Your task to perform on an android device: Open notification settings Image 0: 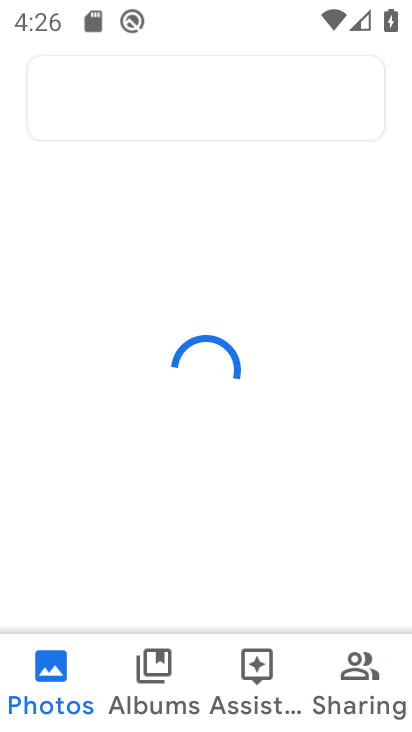
Step 0: press home button
Your task to perform on an android device: Open notification settings Image 1: 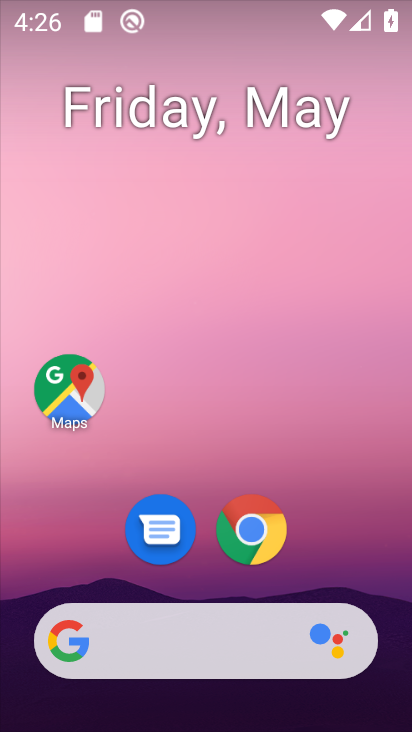
Step 1: drag from (89, 592) to (194, 31)
Your task to perform on an android device: Open notification settings Image 2: 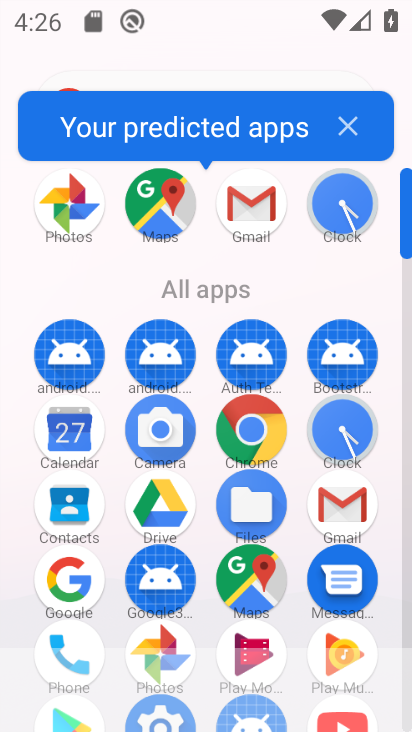
Step 2: drag from (109, 584) to (229, 187)
Your task to perform on an android device: Open notification settings Image 3: 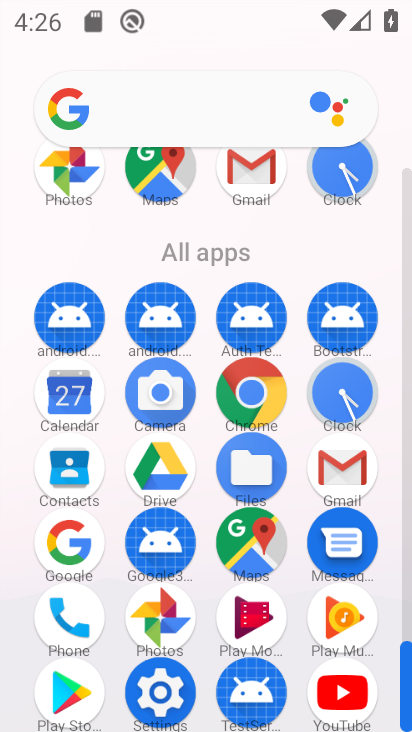
Step 3: click (172, 680)
Your task to perform on an android device: Open notification settings Image 4: 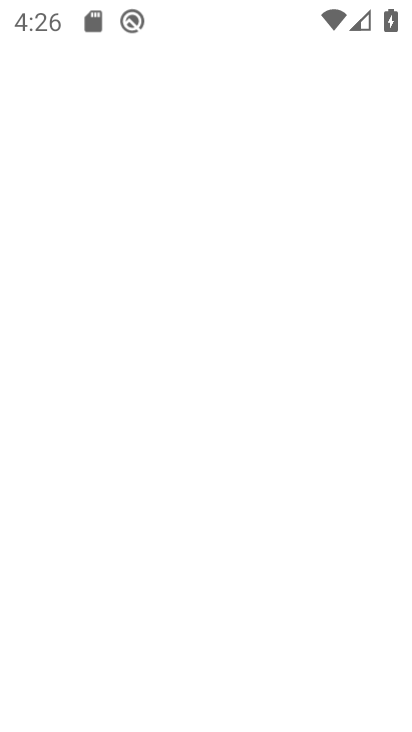
Step 4: click (176, 689)
Your task to perform on an android device: Open notification settings Image 5: 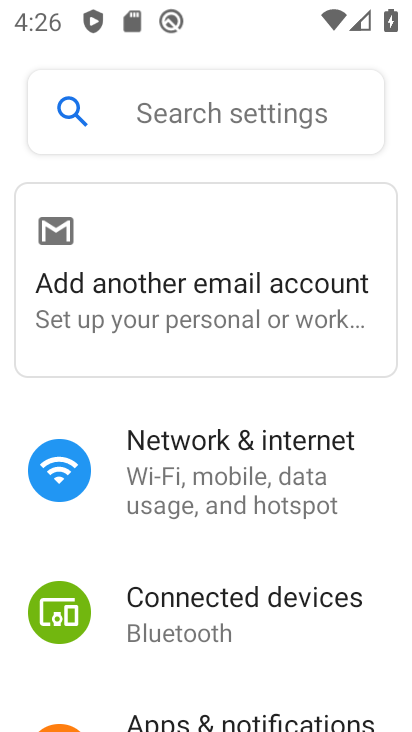
Step 5: drag from (165, 582) to (253, 243)
Your task to perform on an android device: Open notification settings Image 6: 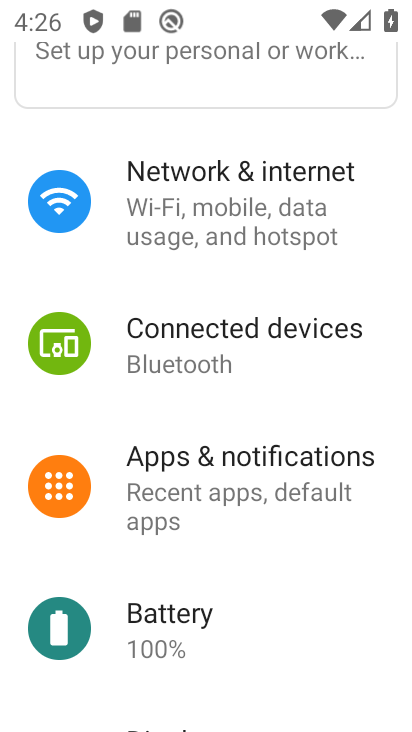
Step 6: click (229, 526)
Your task to perform on an android device: Open notification settings Image 7: 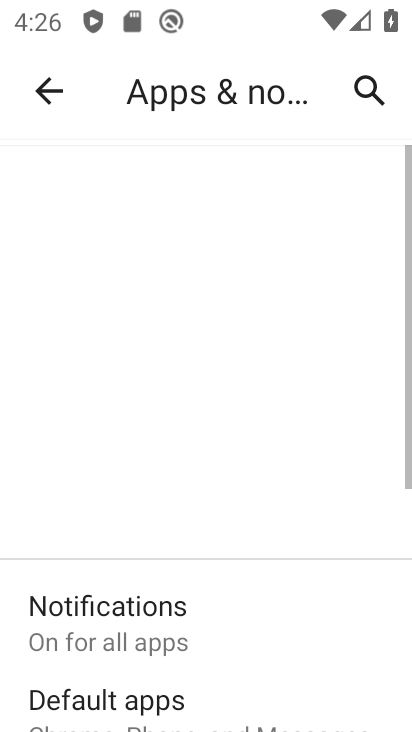
Step 7: click (199, 597)
Your task to perform on an android device: Open notification settings Image 8: 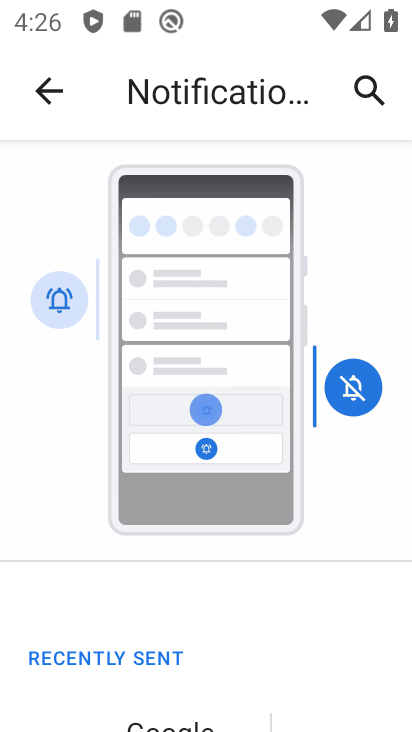
Step 8: task complete